Your task to perform on an android device: Go to accessibility settings Image 0: 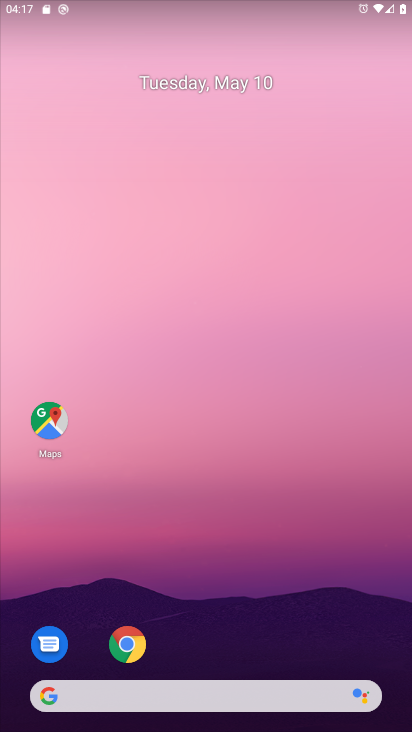
Step 0: drag from (219, 650) to (242, 71)
Your task to perform on an android device: Go to accessibility settings Image 1: 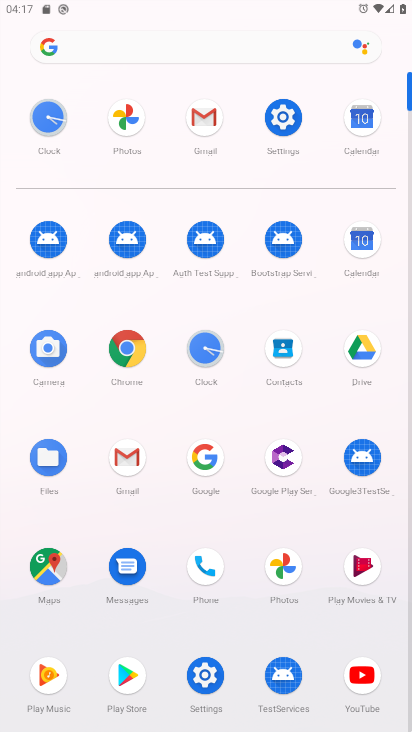
Step 1: click (287, 110)
Your task to perform on an android device: Go to accessibility settings Image 2: 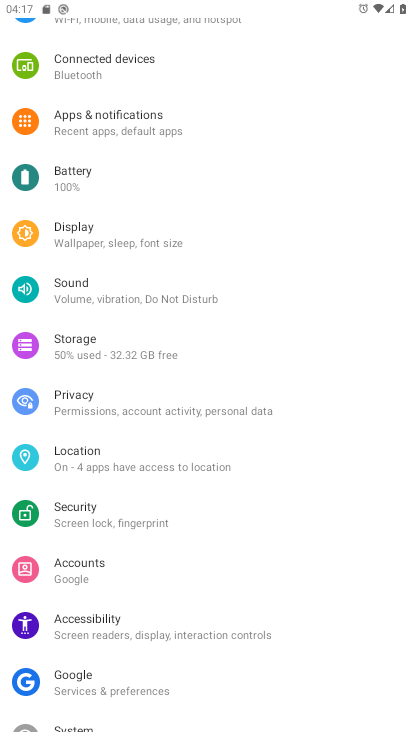
Step 2: click (115, 624)
Your task to perform on an android device: Go to accessibility settings Image 3: 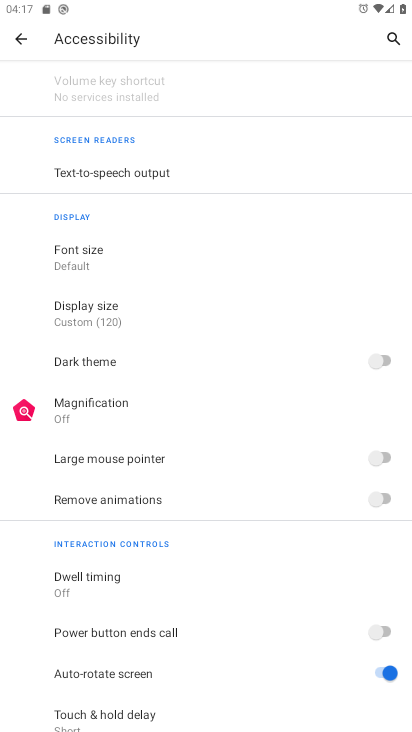
Step 3: task complete